Your task to perform on an android device: check google app version Image 0: 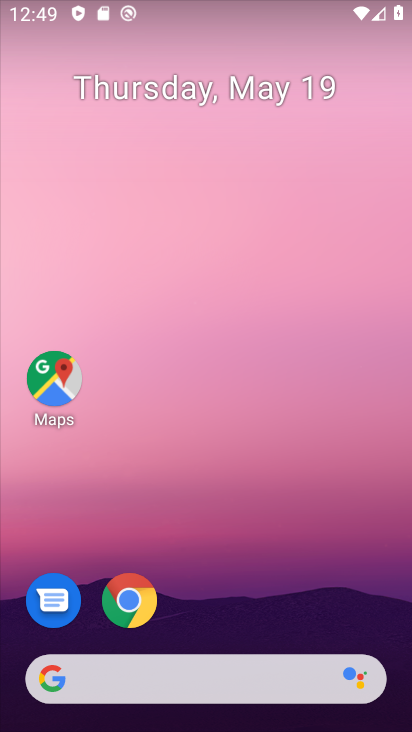
Step 0: drag from (216, 622) to (247, 128)
Your task to perform on an android device: check google app version Image 1: 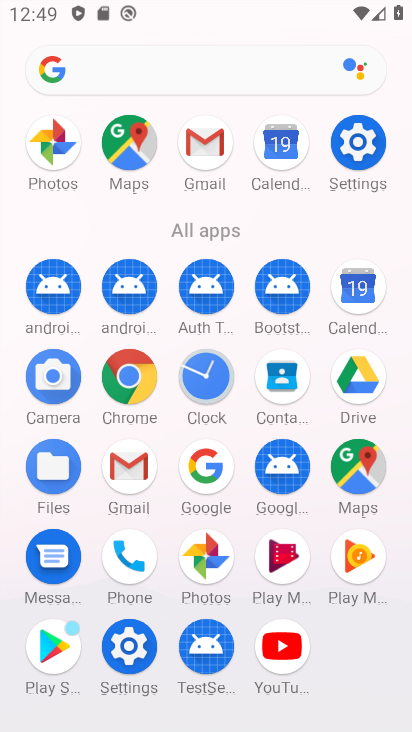
Step 1: click (197, 474)
Your task to perform on an android device: check google app version Image 2: 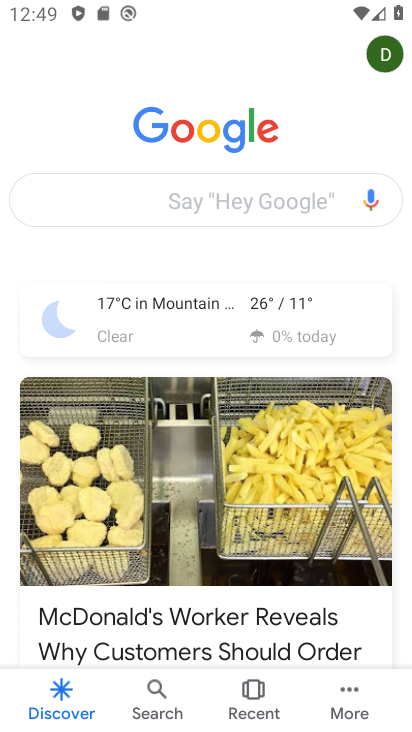
Step 2: click (351, 690)
Your task to perform on an android device: check google app version Image 3: 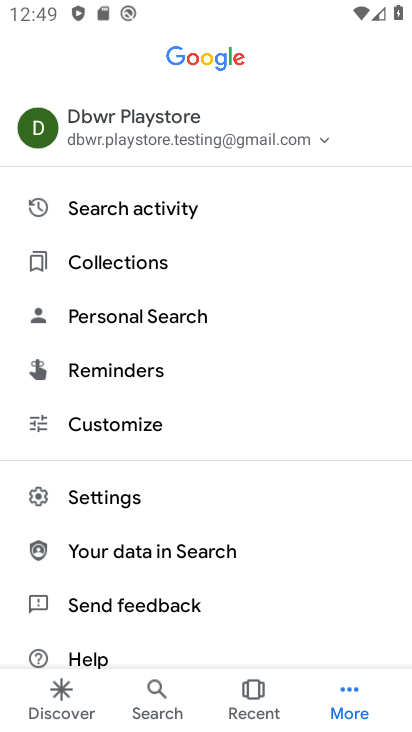
Step 3: click (109, 504)
Your task to perform on an android device: check google app version Image 4: 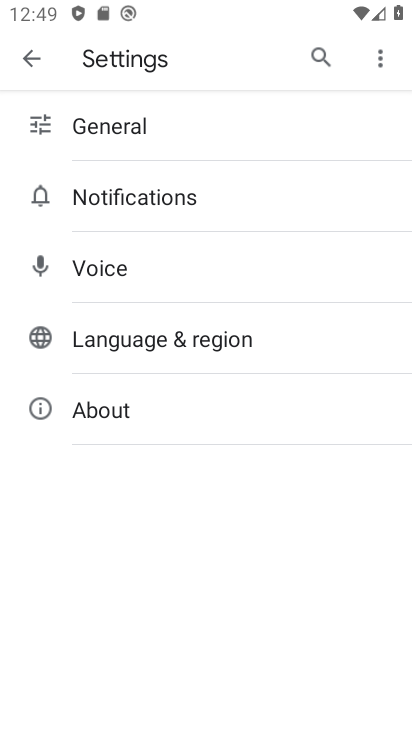
Step 4: click (102, 412)
Your task to perform on an android device: check google app version Image 5: 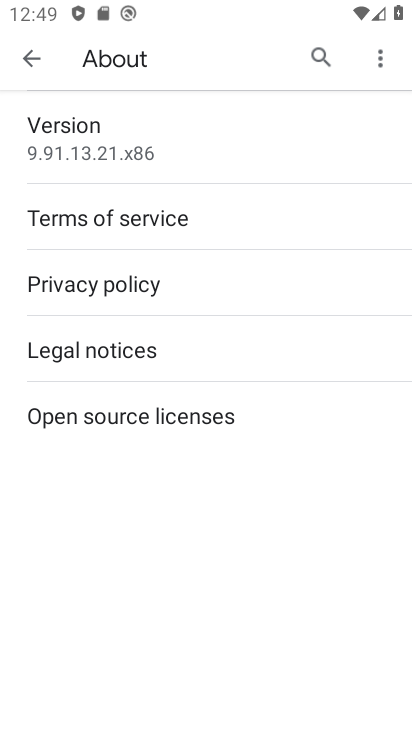
Step 5: click (135, 139)
Your task to perform on an android device: check google app version Image 6: 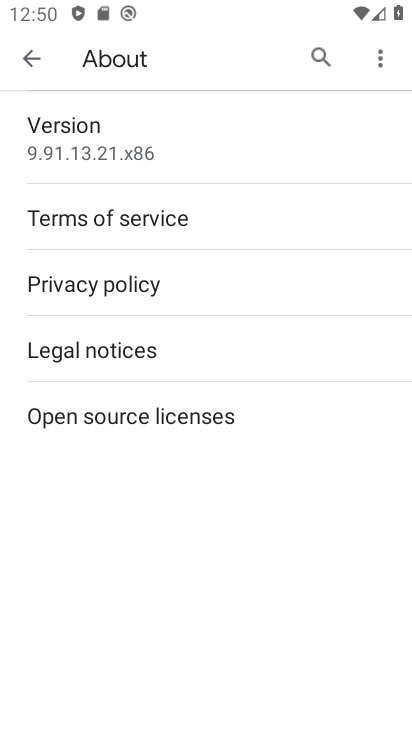
Step 6: task complete